Your task to perform on an android device: Go to Google Image 0: 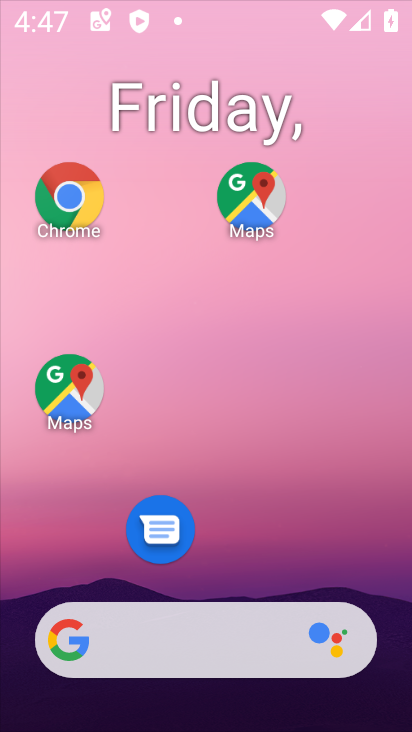
Step 0: click (248, 46)
Your task to perform on an android device: Go to Google Image 1: 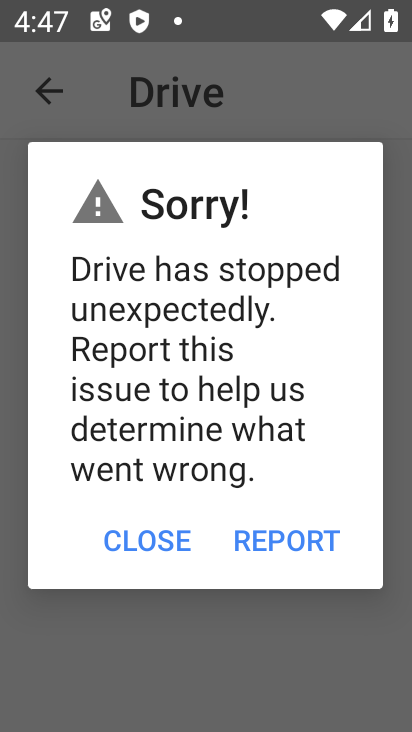
Step 1: press home button
Your task to perform on an android device: Go to Google Image 2: 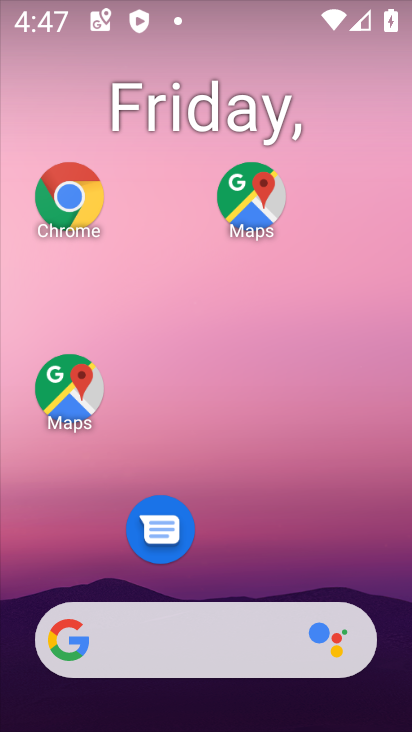
Step 2: drag from (223, 572) to (246, 56)
Your task to perform on an android device: Go to Google Image 3: 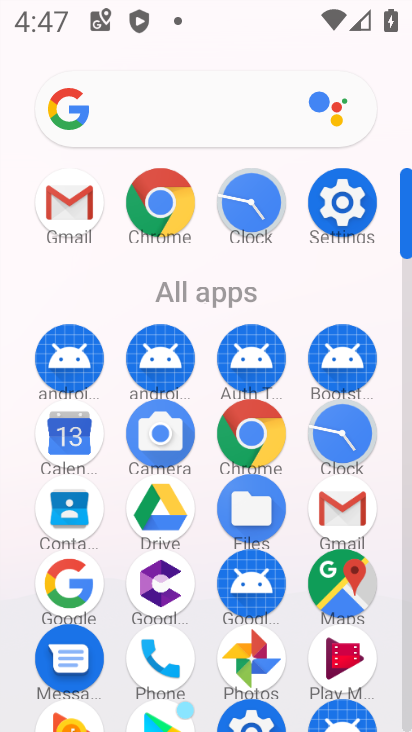
Step 3: click (65, 212)
Your task to perform on an android device: Go to Google Image 4: 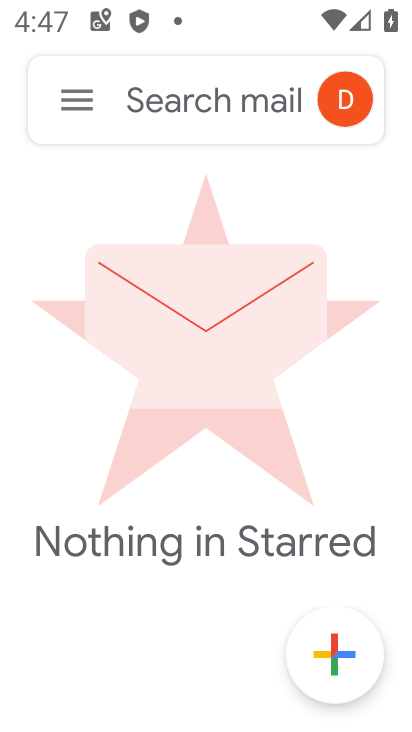
Step 4: press home button
Your task to perform on an android device: Go to Google Image 5: 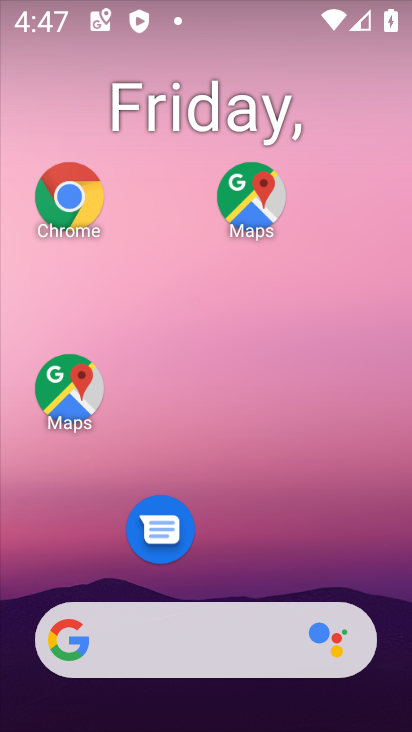
Step 5: click (181, 629)
Your task to perform on an android device: Go to Google Image 6: 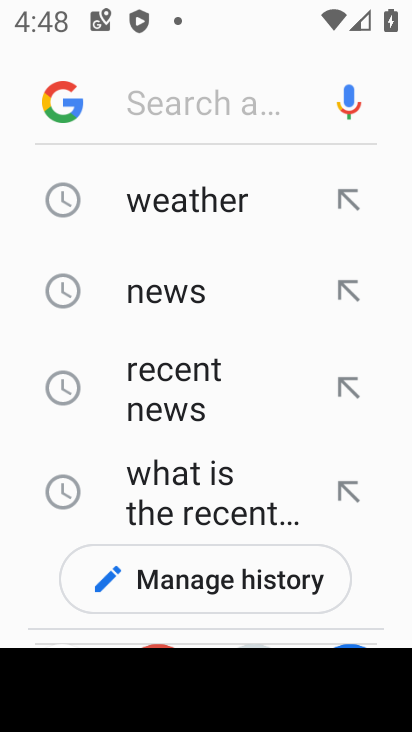
Step 6: task complete